Your task to perform on an android device: Open wifi settings Image 0: 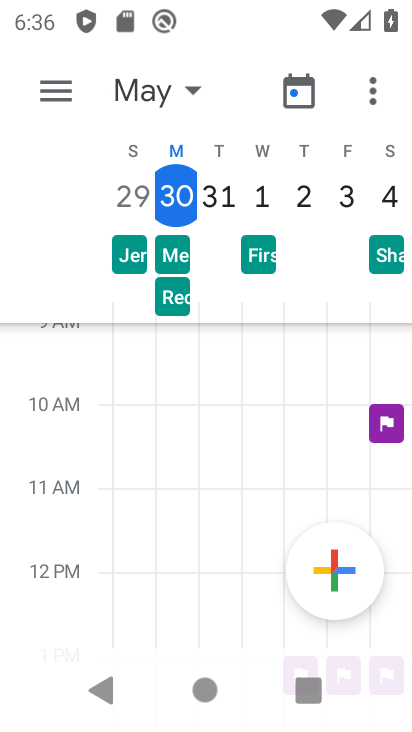
Step 0: press home button
Your task to perform on an android device: Open wifi settings Image 1: 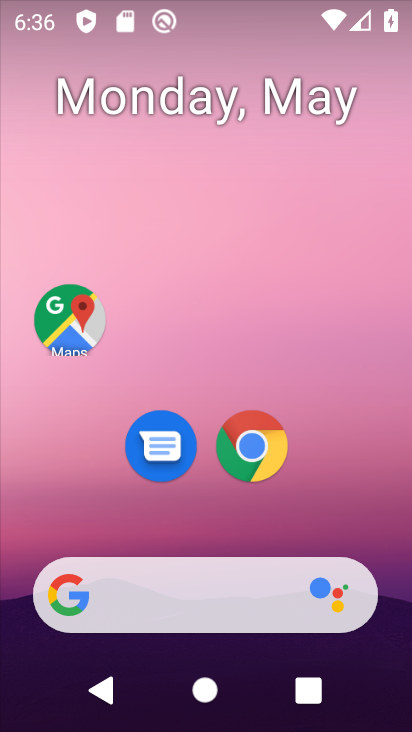
Step 1: drag from (312, 522) to (224, 97)
Your task to perform on an android device: Open wifi settings Image 2: 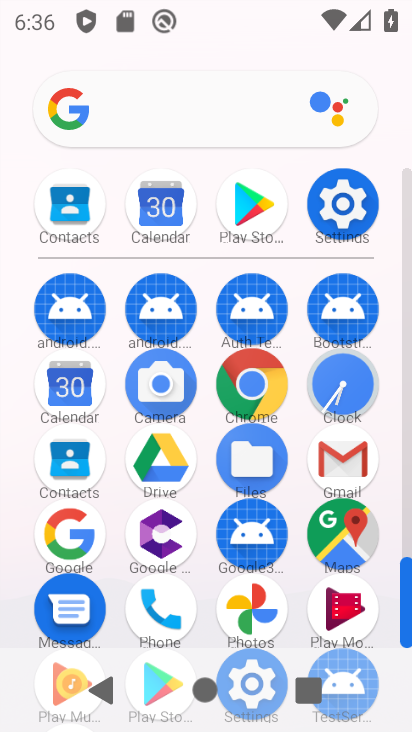
Step 2: click (339, 204)
Your task to perform on an android device: Open wifi settings Image 3: 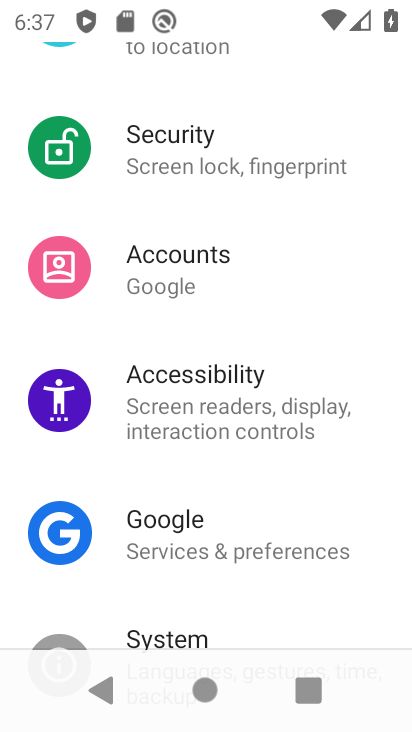
Step 3: drag from (228, 241) to (229, 715)
Your task to perform on an android device: Open wifi settings Image 4: 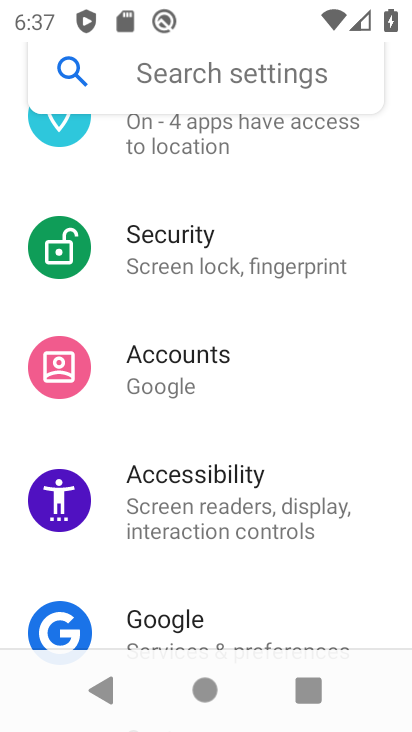
Step 4: drag from (261, 204) to (188, 718)
Your task to perform on an android device: Open wifi settings Image 5: 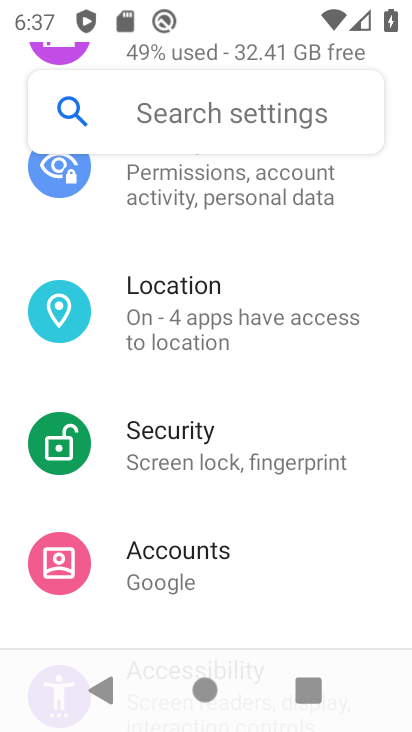
Step 5: drag from (222, 220) to (235, 729)
Your task to perform on an android device: Open wifi settings Image 6: 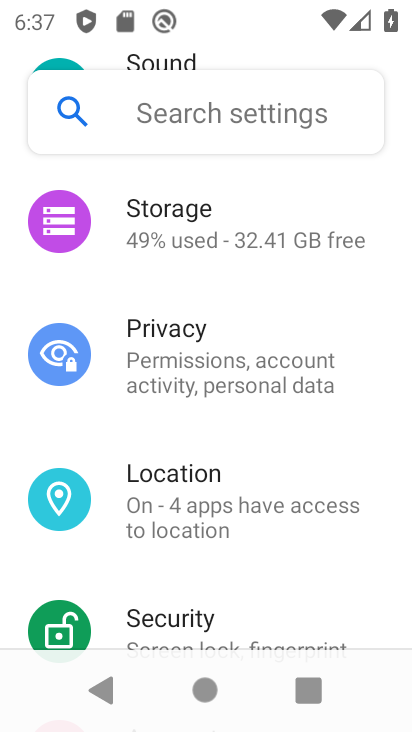
Step 6: drag from (202, 268) to (158, 682)
Your task to perform on an android device: Open wifi settings Image 7: 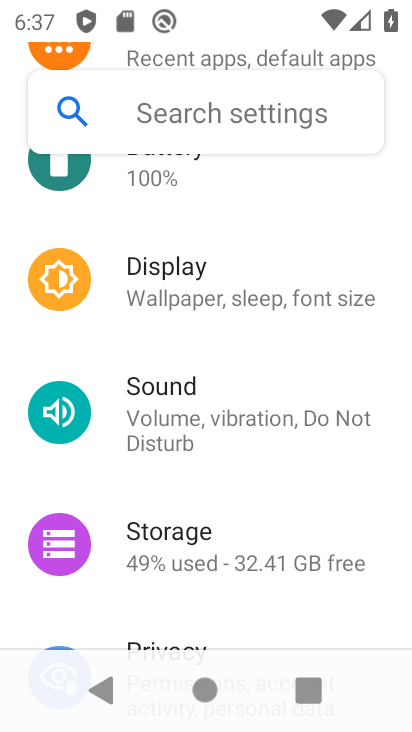
Step 7: drag from (207, 227) to (94, 719)
Your task to perform on an android device: Open wifi settings Image 8: 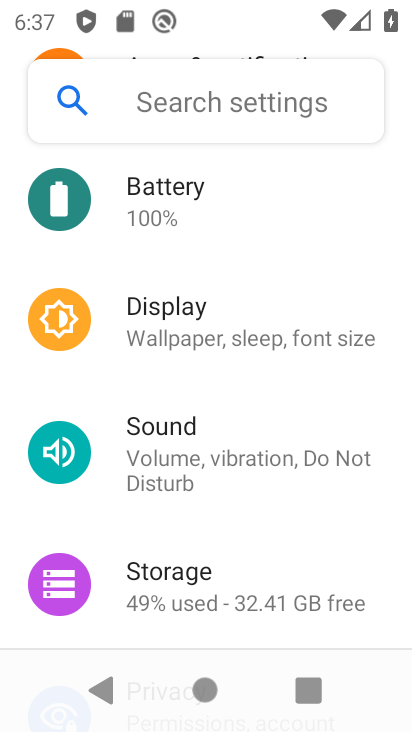
Step 8: drag from (227, 271) to (87, 635)
Your task to perform on an android device: Open wifi settings Image 9: 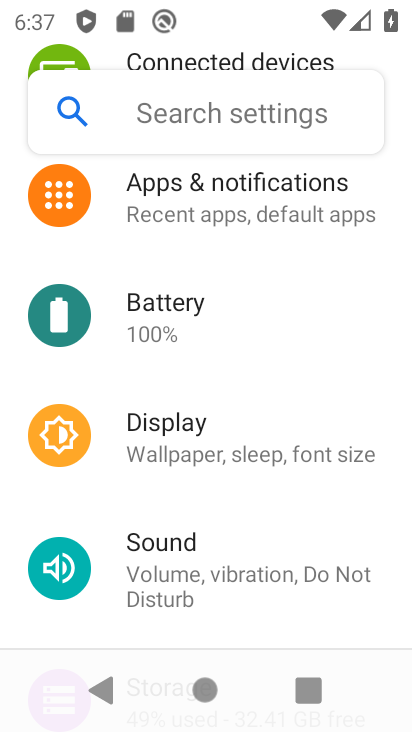
Step 9: drag from (214, 263) to (231, 463)
Your task to perform on an android device: Open wifi settings Image 10: 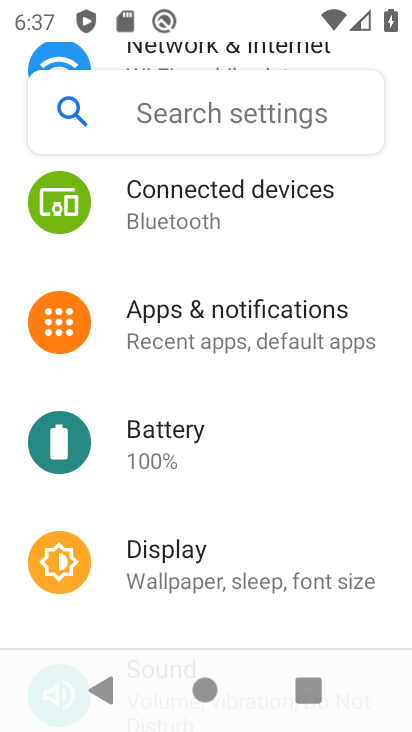
Step 10: drag from (203, 243) to (120, 574)
Your task to perform on an android device: Open wifi settings Image 11: 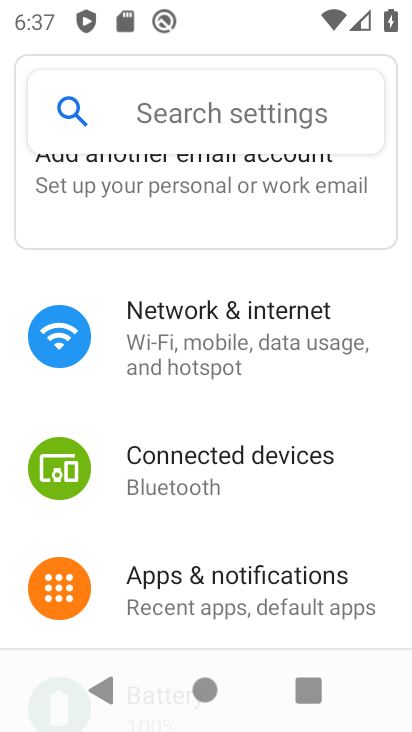
Step 11: click (203, 330)
Your task to perform on an android device: Open wifi settings Image 12: 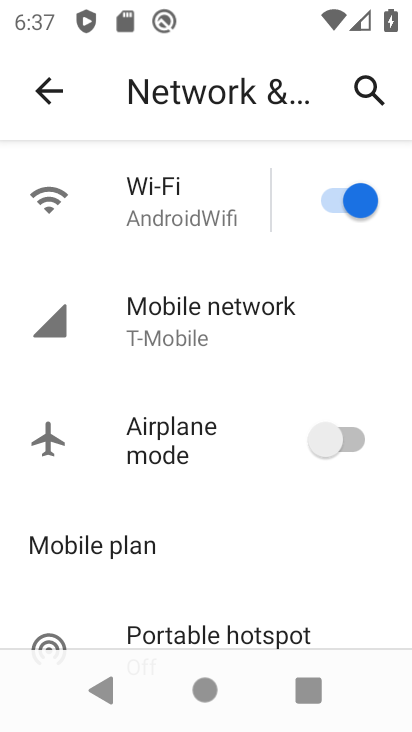
Step 12: click (142, 182)
Your task to perform on an android device: Open wifi settings Image 13: 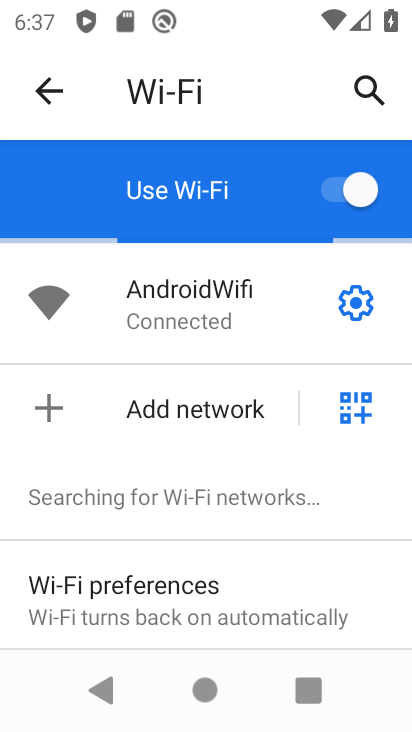
Step 13: task complete